Your task to perform on an android device: turn off javascript in the chrome app Image 0: 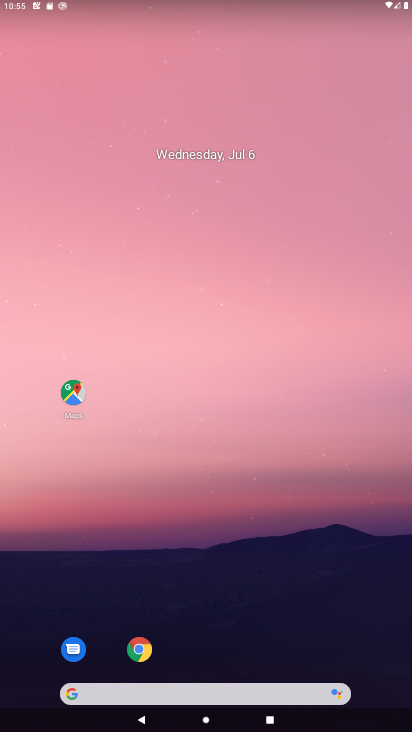
Step 0: drag from (271, 704) to (266, 116)
Your task to perform on an android device: turn off javascript in the chrome app Image 1: 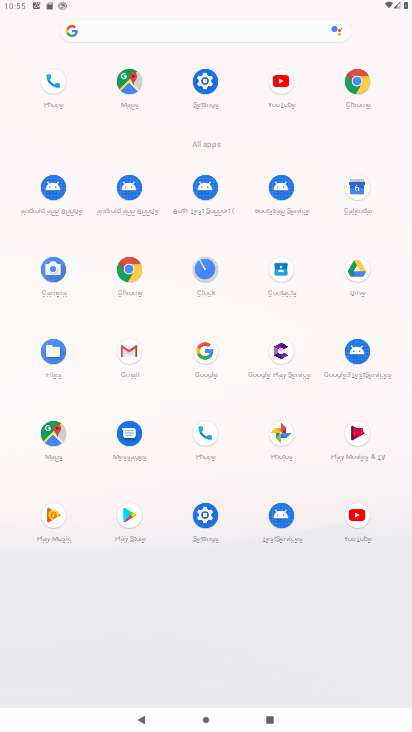
Step 1: click (129, 289)
Your task to perform on an android device: turn off javascript in the chrome app Image 2: 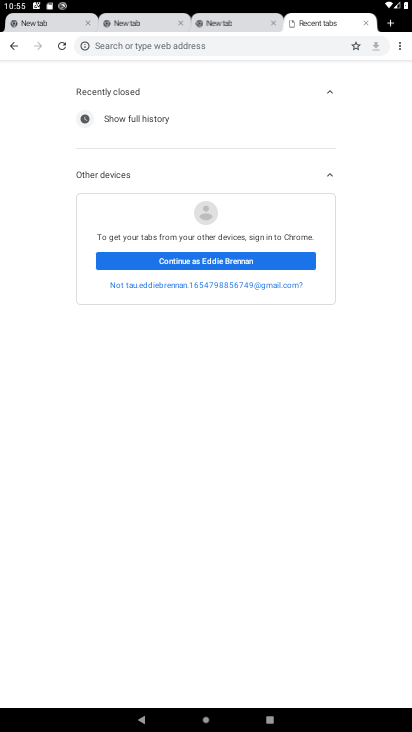
Step 2: click (392, 39)
Your task to perform on an android device: turn off javascript in the chrome app Image 3: 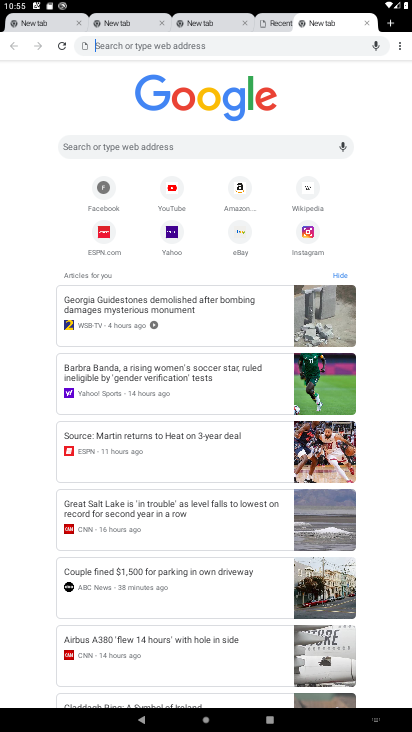
Step 3: drag from (390, 44) to (319, 216)
Your task to perform on an android device: turn off javascript in the chrome app Image 4: 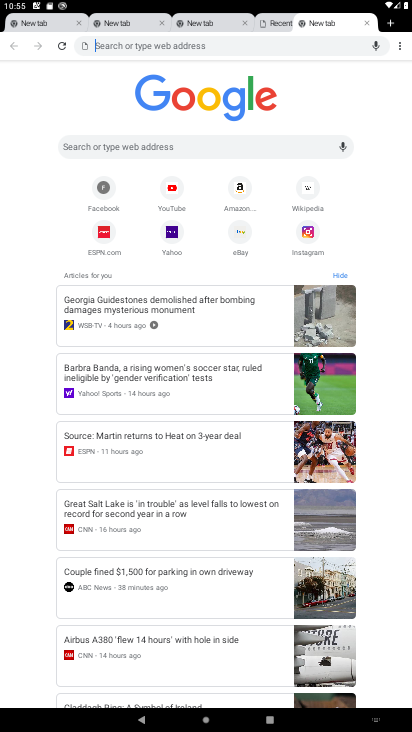
Step 4: drag from (394, 41) to (315, 213)
Your task to perform on an android device: turn off javascript in the chrome app Image 5: 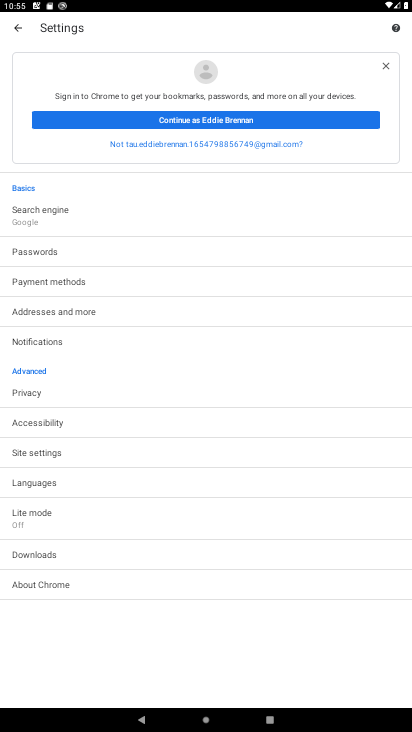
Step 5: click (66, 453)
Your task to perform on an android device: turn off javascript in the chrome app Image 6: 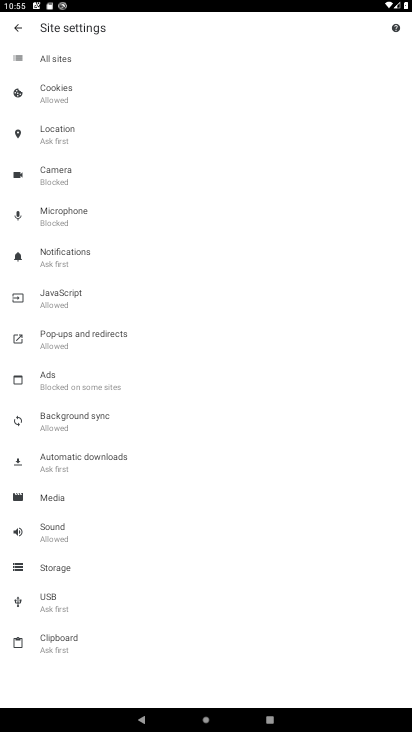
Step 6: click (77, 290)
Your task to perform on an android device: turn off javascript in the chrome app Image 7: 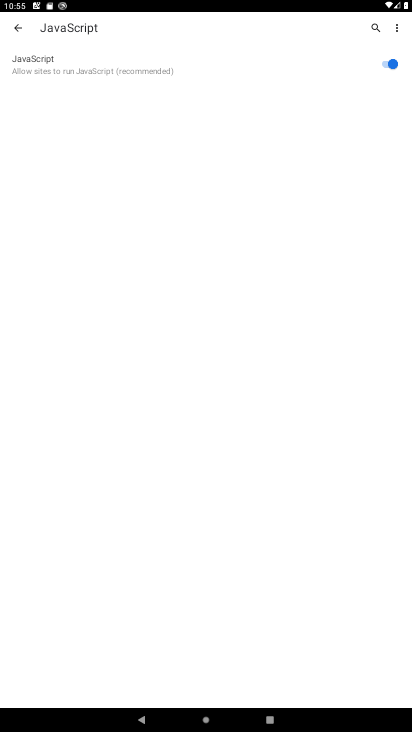
Step 7: click (383, 67)
Your task to perform on an android device: turn off javascript in the chrome app Image 8: 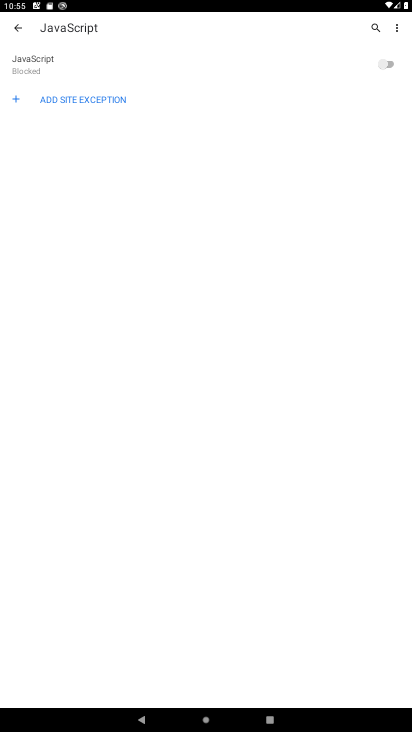
Step 8: task complete